Your task to perform on an android device: Go to privacy settings Image 0: 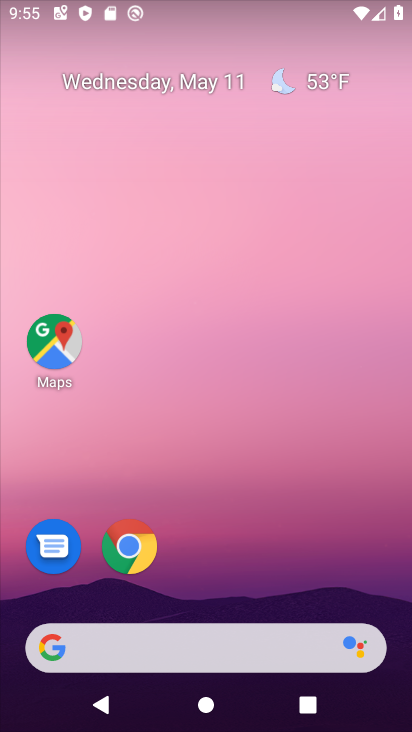
Step 0: drag from (404, 626) to (319, 57)
Your task to perform on an android device: Go to privacy settings Image 1: 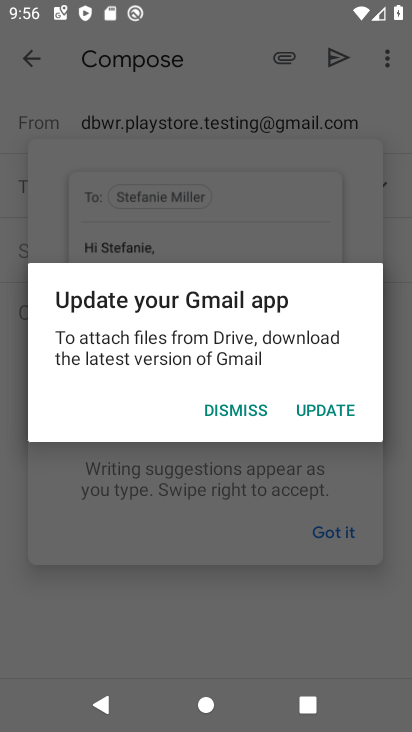
Step 1: press home button
Your task to perform on an android device: Go to privacy settings Image 2: 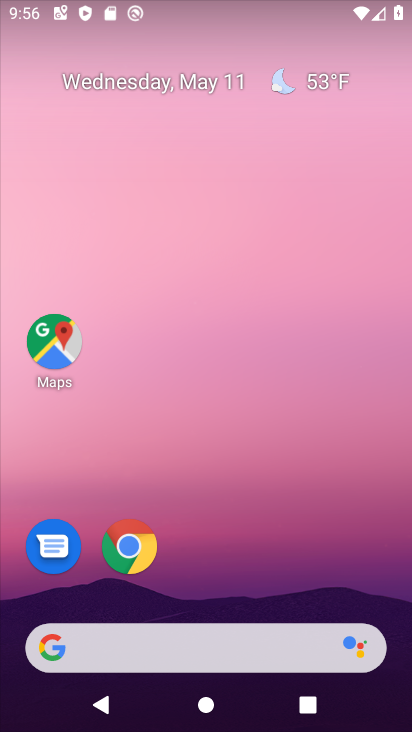
Step 2: drag from (396, 630) to (298, 87)
Your task to perform on an android device: Go to privacy settings Image 3: 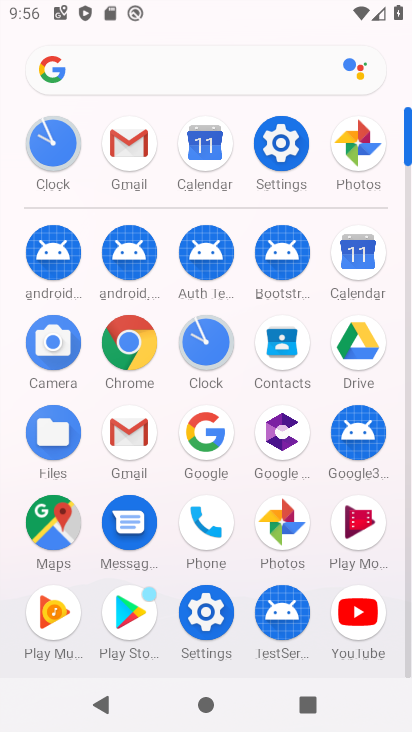
Step 3: click (222, 603)
Your task to perform on an android device: Go to privacy settings Image 4: 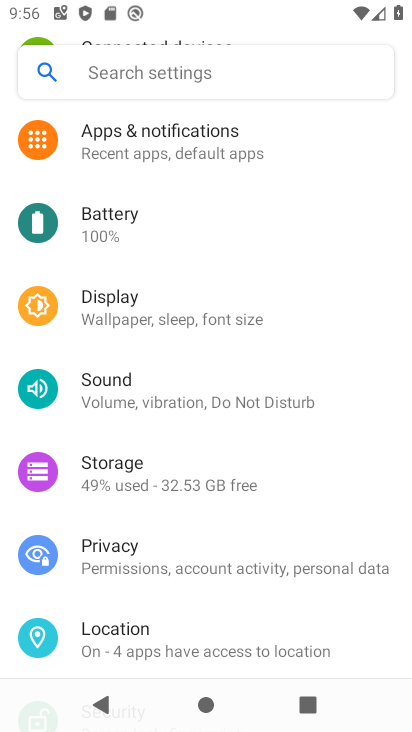
Step 4: click (151, 544)
Your task to perform on an android device: Go to privacy settings Image 5: 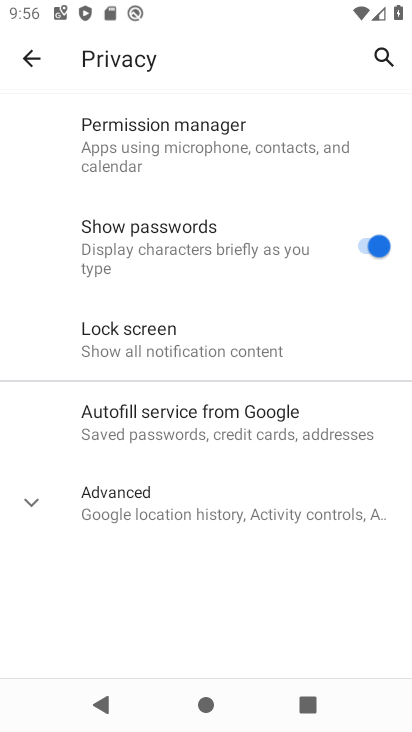
Step 5: task complete